Your task to perform on an android device: turn pop-ups on in chrome Image 0: 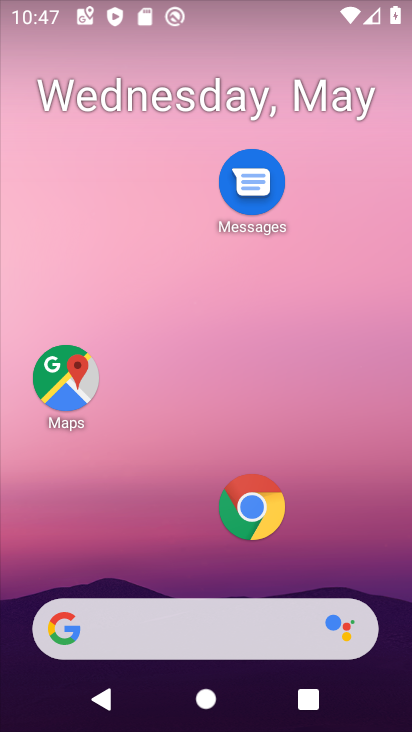
Step 0: click (247, 498)
Your task to perform on an android device: turn pop-ups on in chrome Image 1: 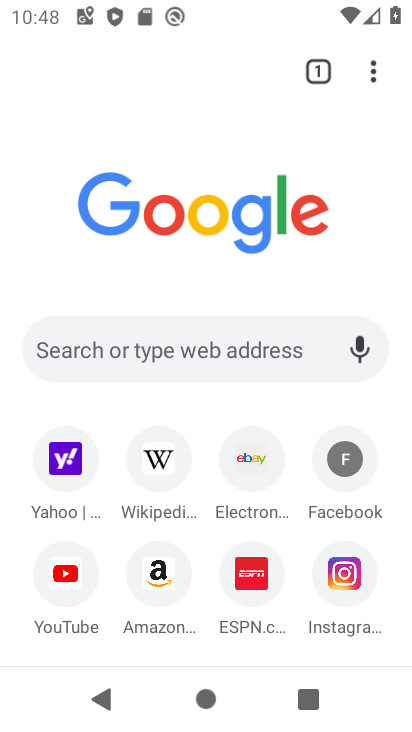
Step 1: click (376, 69)
Your task to perform on an android device: turn pop-ups on in chrome Image 2: 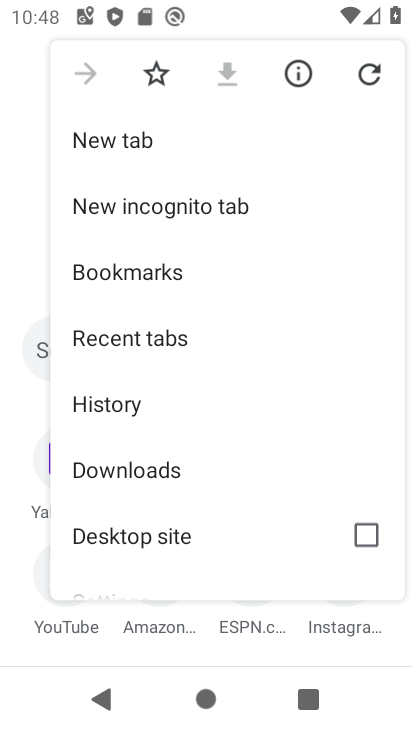
Step 2: drag from (209, 539) to (251, 134)
Your task to perform on an android device: turn pop-ups on in chrome Image 3: 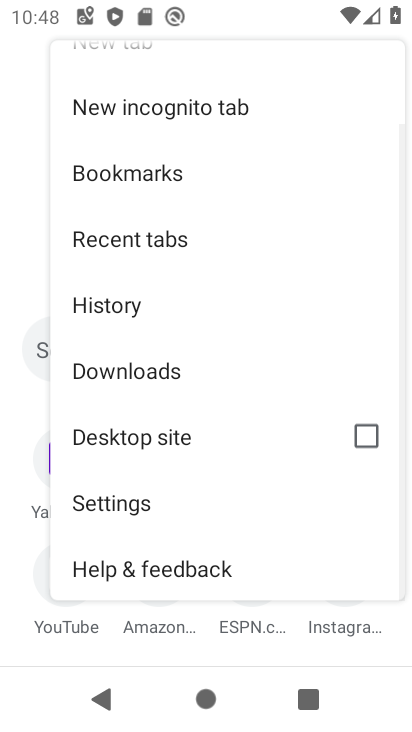
Step 3: click (167, 501)
Your task to perform on an android device: turn pop-ups on in chrome Image 4: 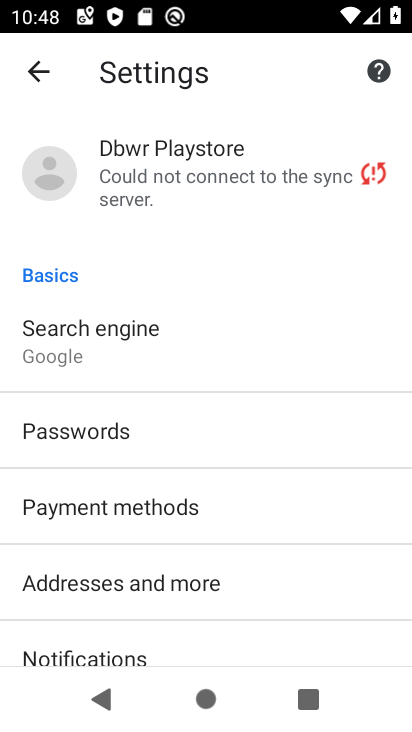
Step 4: drag from (224, 622) to (261, 166)
Your task to perform on an android device: turn pop-ups on in chrome Image 5: 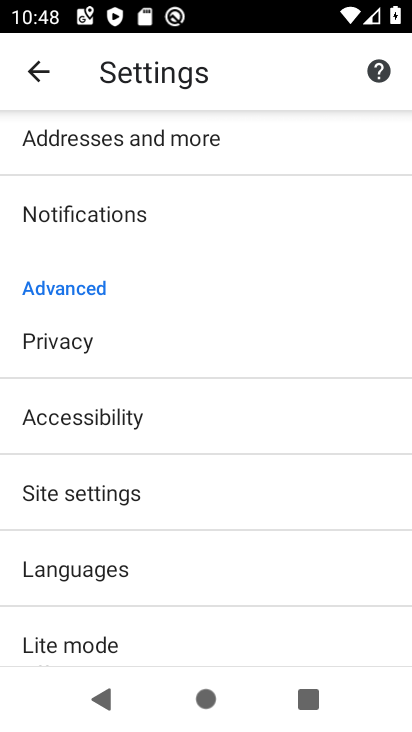
Step 5: click (155, 488)
Your task to perform on an android device: turn pop-ups on in chrome Image 6: 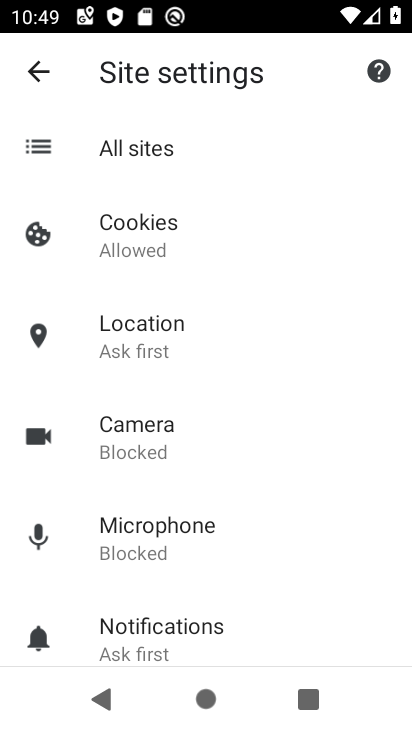
Step 6: drag from (194, 611) to (234, 172)
Your task to perform on an android device: turn pop-ups on in chrome Image 7: 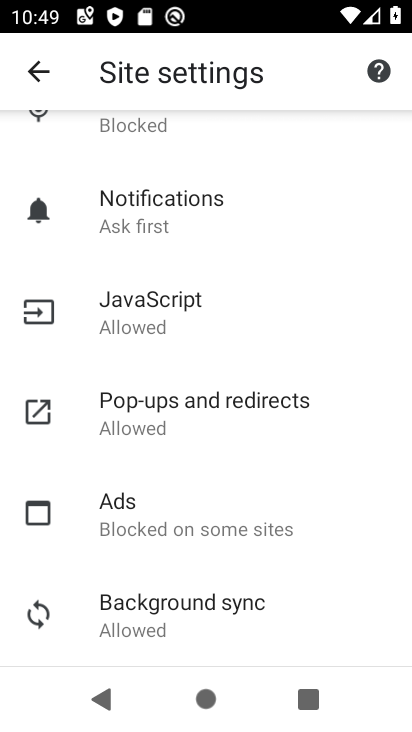
Step 7: click (180, 415)
Your task to perform on an android device: turn pop-ups on in chrome Image 8: 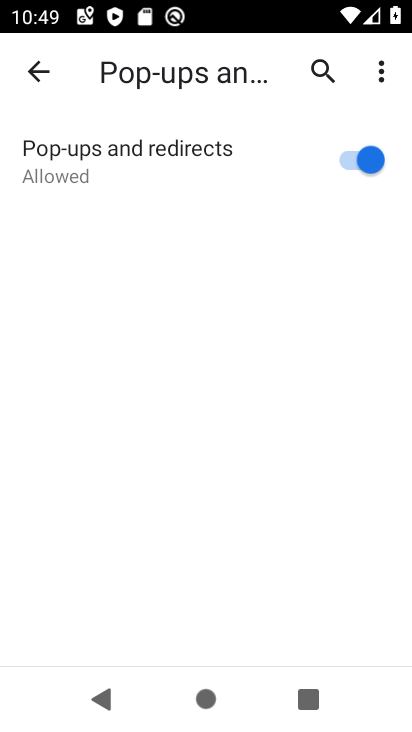
Step 8: task complete